Your task to perform on an android device: change keyboard looks Image 0: 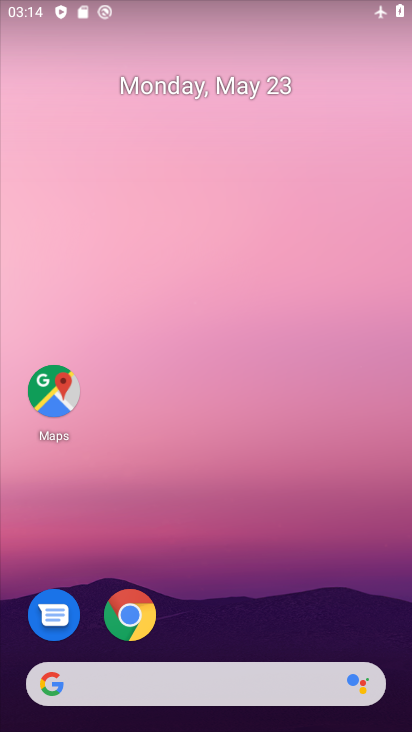
Step 0: click (257, 511)
Your task to perform on an android device: change keyboard looks Image 1: 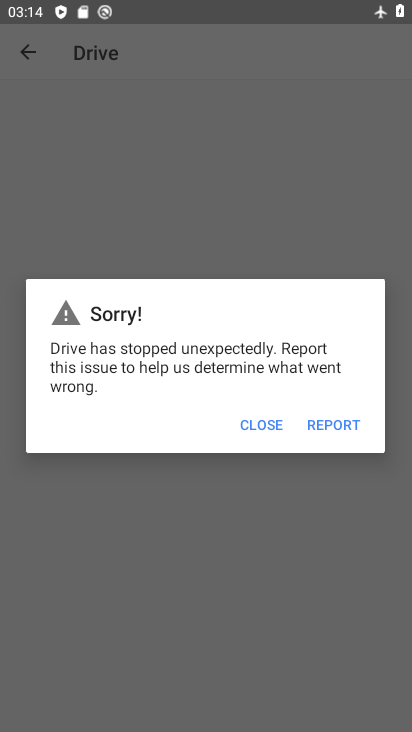
Step 1: press home button
Your task to perform on an android device: change keyboard looks Image 2: 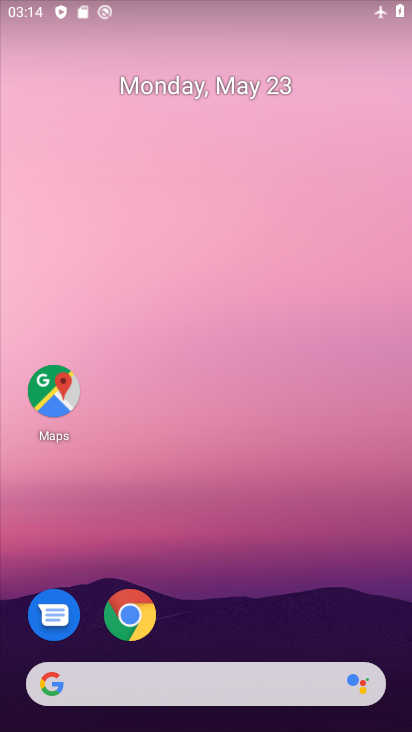
Step 2: drag from (256, 570) to (280, 204)
Your task to perform on an android device: change keyboard looks Image 3: 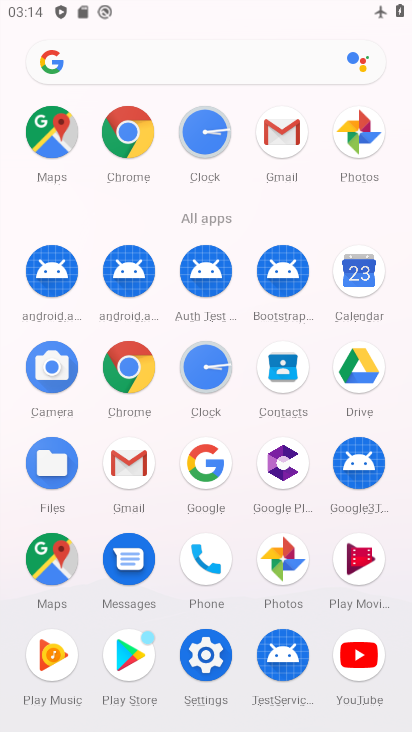
Step 3: click (214, 661)
Your task to perform on an android device: change keyboard looks Image 4: 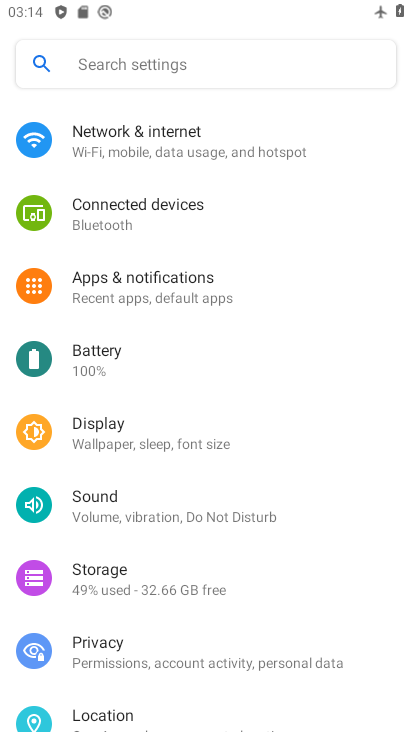
Step 4: drag from (178, 644) to (229, 284)
Your task to perform on an android device: change keyboard looks Image 5: 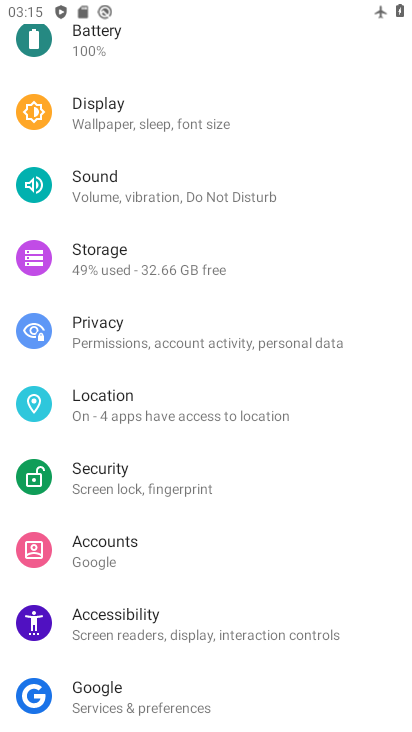
Step 5: drag from (196, 643) to (216, 398)
Your task to perform on an android device: change keyboard looks Image 6: 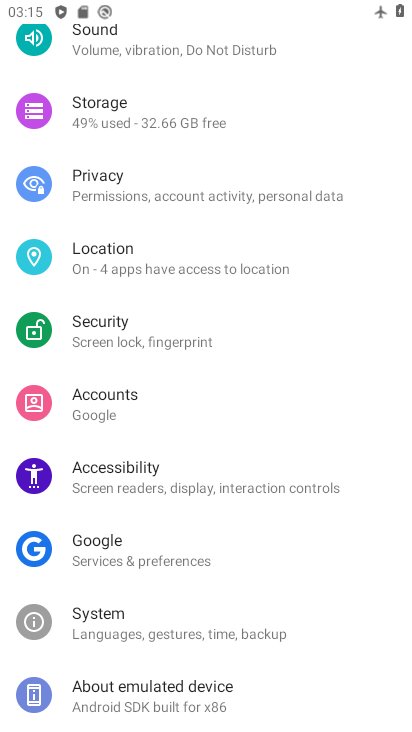
Step 6: click (170, 456)
Your task to perform on an android device: change keyboard looks Image 7: 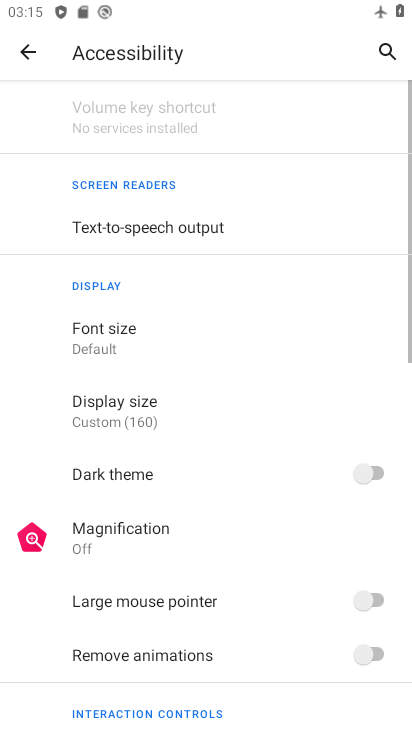
Step 7: click (20, 46)
Your task to perform on an android device: change keyboard looks Image 8: 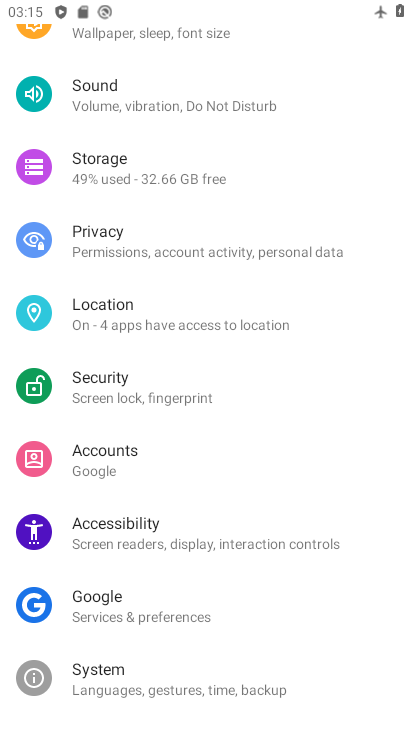
Step 8: click (151, 683)
Your task to perform on an android device: change keyboard looks Image 9: 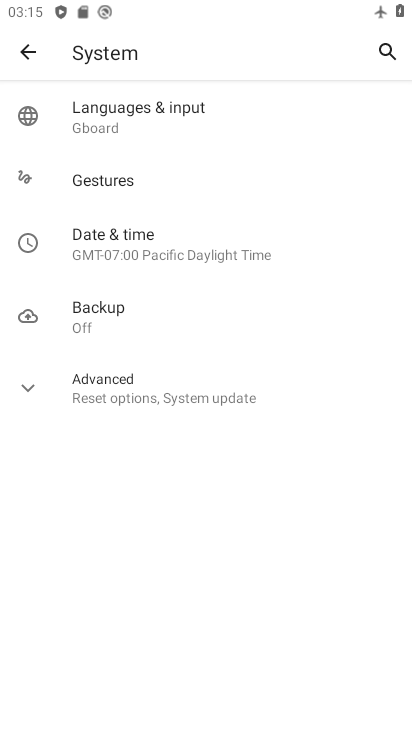
Step 9: click (151, 113)
Your task to perform on an android device: change keyboard looks Image 10: 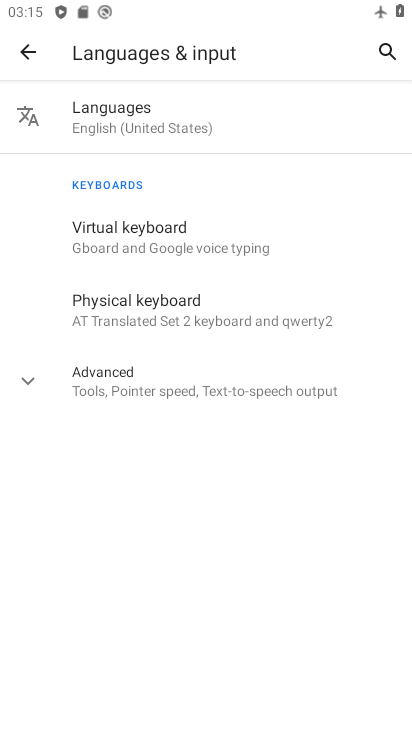
Step 10: click (153, 241)
Your task to perform on an android device: change keyboard looks Image 11: 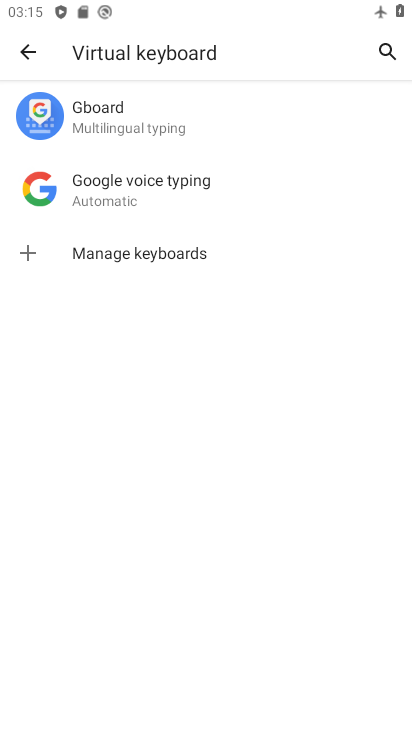
Step 11: click (146, 114)
Your task to perform on an android device: change keyboard looks Image 12: 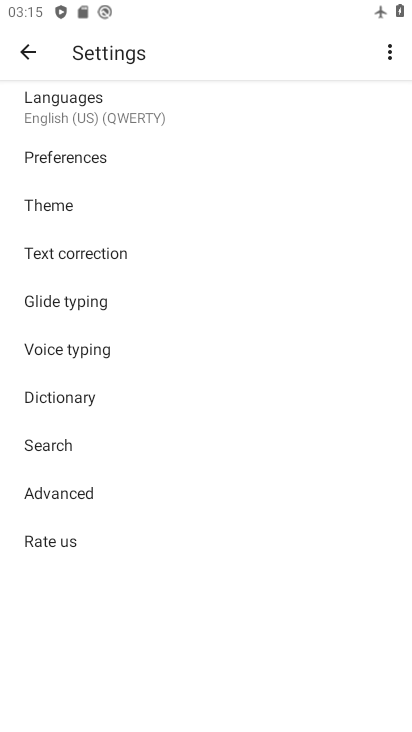
Step 12: click (59, 202)
Your task to perform on an android device: change keyboard looks Image 13: 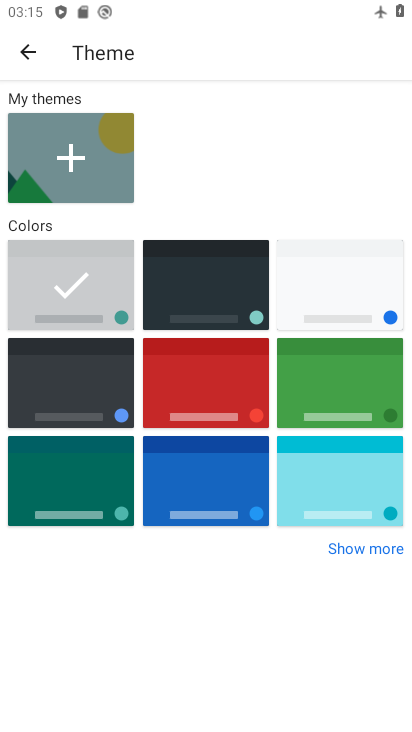
Step 13: click (174, 372)
Your task to perform on an android device: change keyboard looks Image 14: 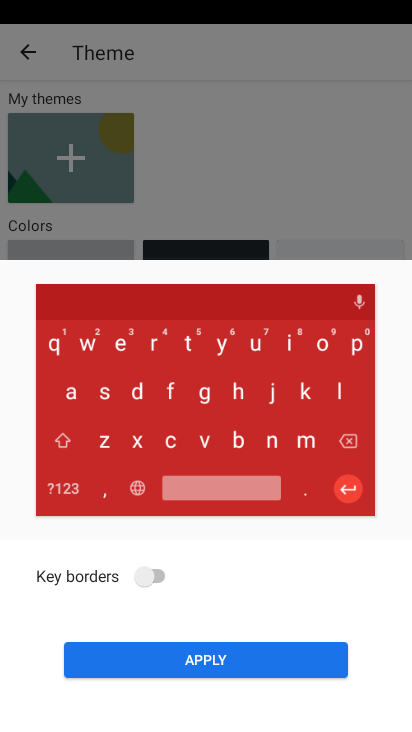
Step 14: click (253, 654)
Your task to perform on an android device: change keyboard looks Image 15: 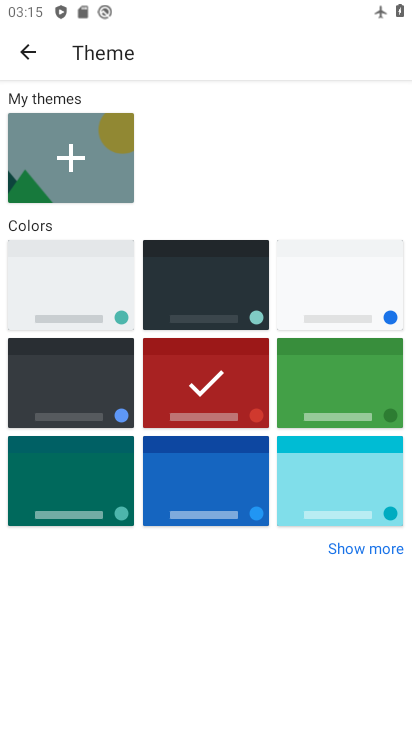
Step 15: task complete